Your task to perform on an android device: toggle airplane mode Image 0: 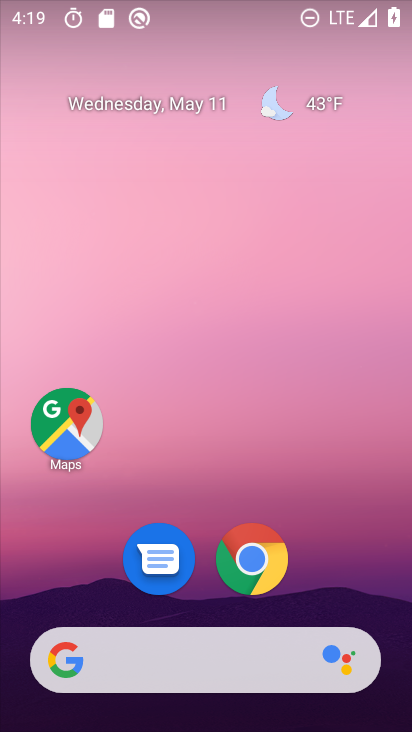
Step 0: drag from (331, 520) to (216, 0)
Your task to perform on an android device: toggle airplane mode Image 1: 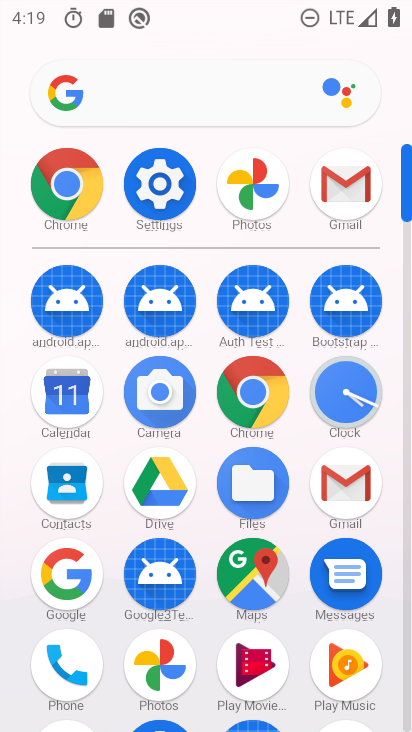
Step 1: click (164, 187)
Your task to perform on an android device: toggle airplane mode Image 2: 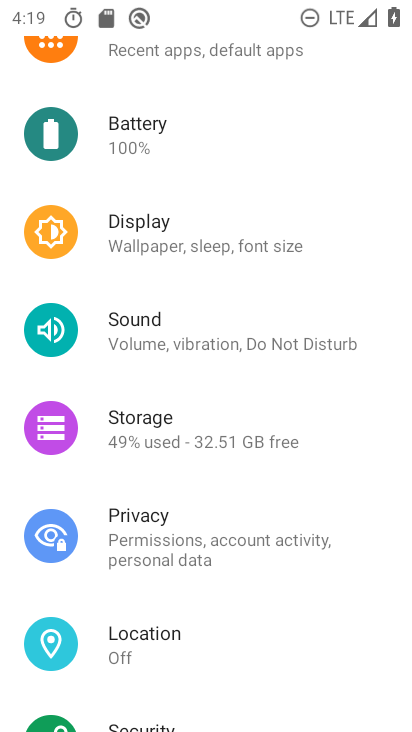
Step 2: drag from (247, 151) to (243, 680)
Your task to perform on an android device: toggle airplane mode Image 3: 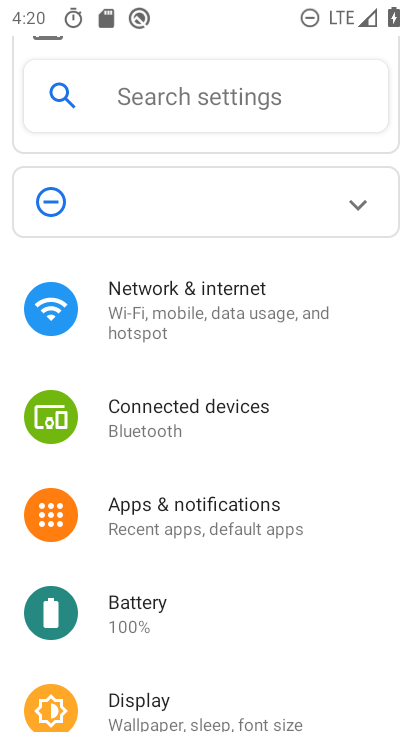
Step 3: click (251, 304)
Your task to perform on an android device: toggle airplane mode Image 4: 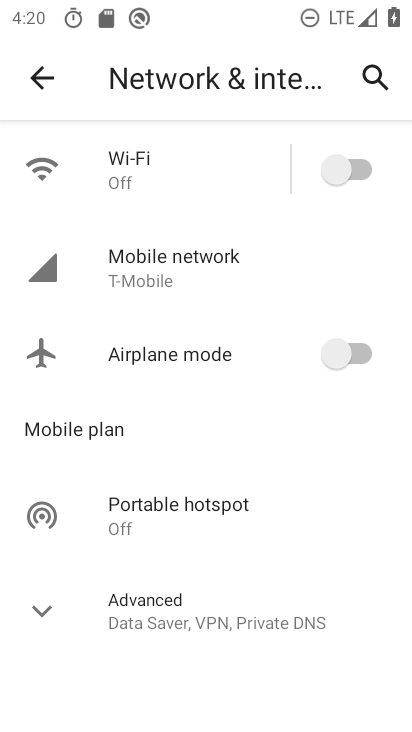
Step 4: click (347, 351)
Your task to perform on an android device: toggle airplane mode Image 5: 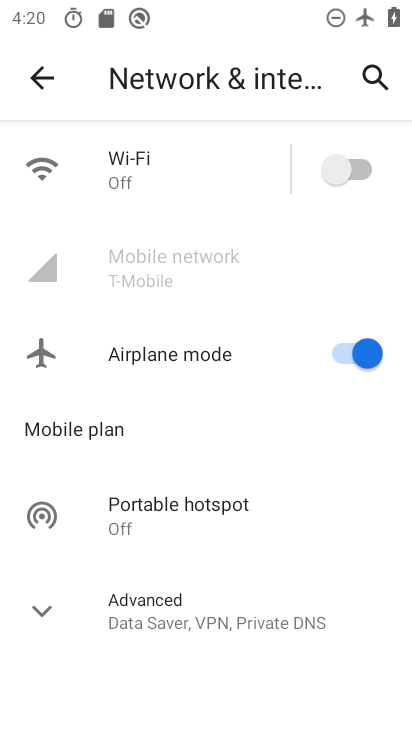
Step 5: task complete